Your task to perform on an android device: Open my contact list Image 0: 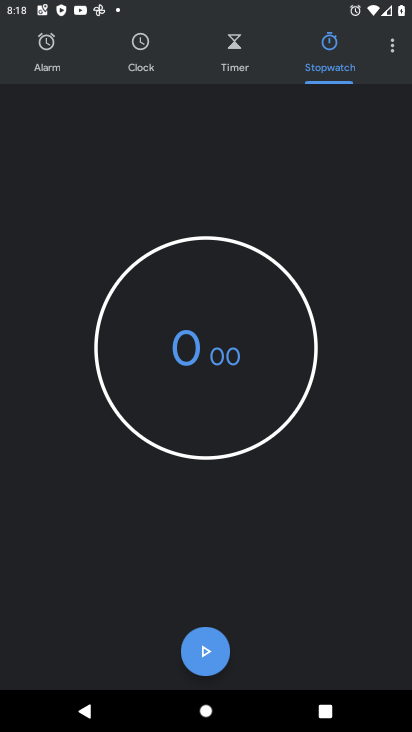
Step 0: press home button
Your task to perform on an android device: Open my contact list Image 1: 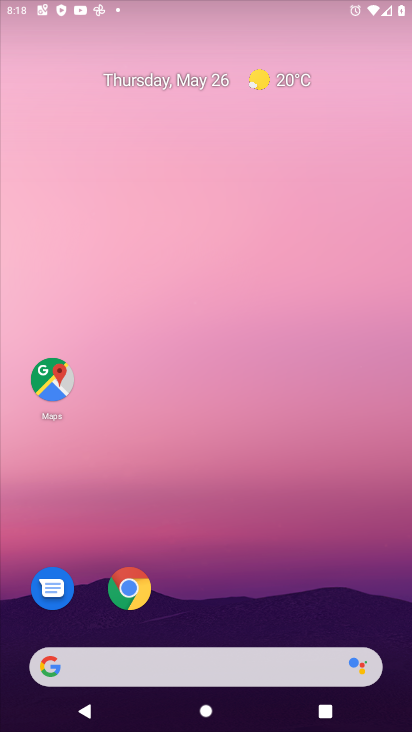
Step 1: drag from (398, 636) to (342, 115)
Your task to perform on an android device: Open my contact list Image 2: 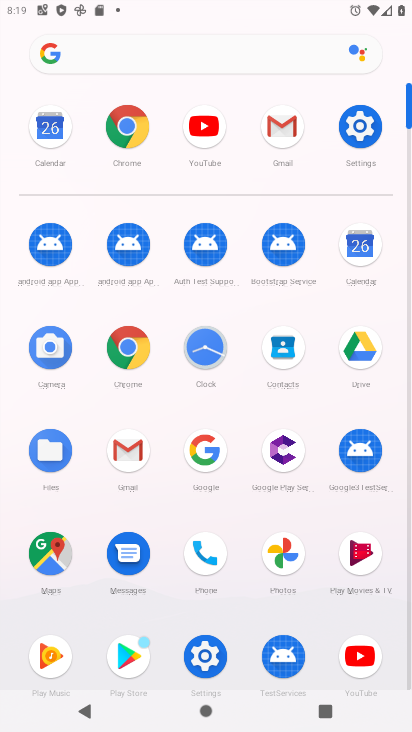
Step 2: click (278, 355)
Your task to perform on an android device: Open my contact list Image 3: 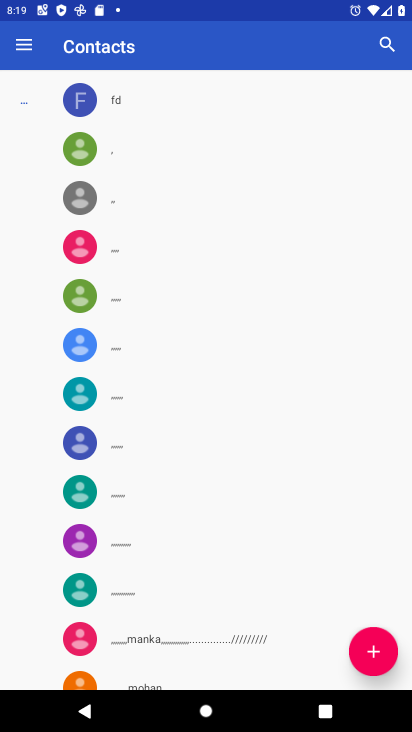
Step 3: task complete